Your task to perform on an android device: turn on notifications settings in the gmail app Image 0: 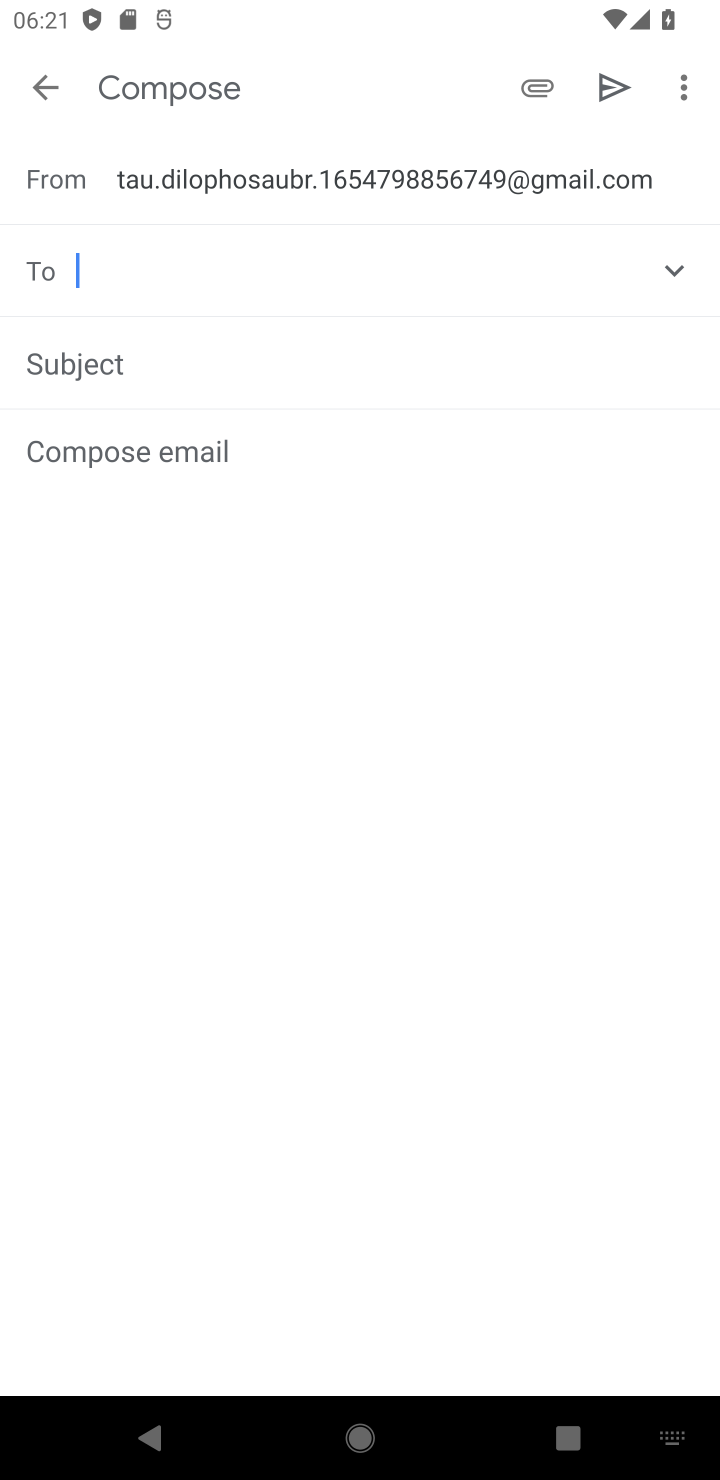
Step 0: press home button
Your task to perform on an android device: turn on notifications settings in the gmail app Image 1: 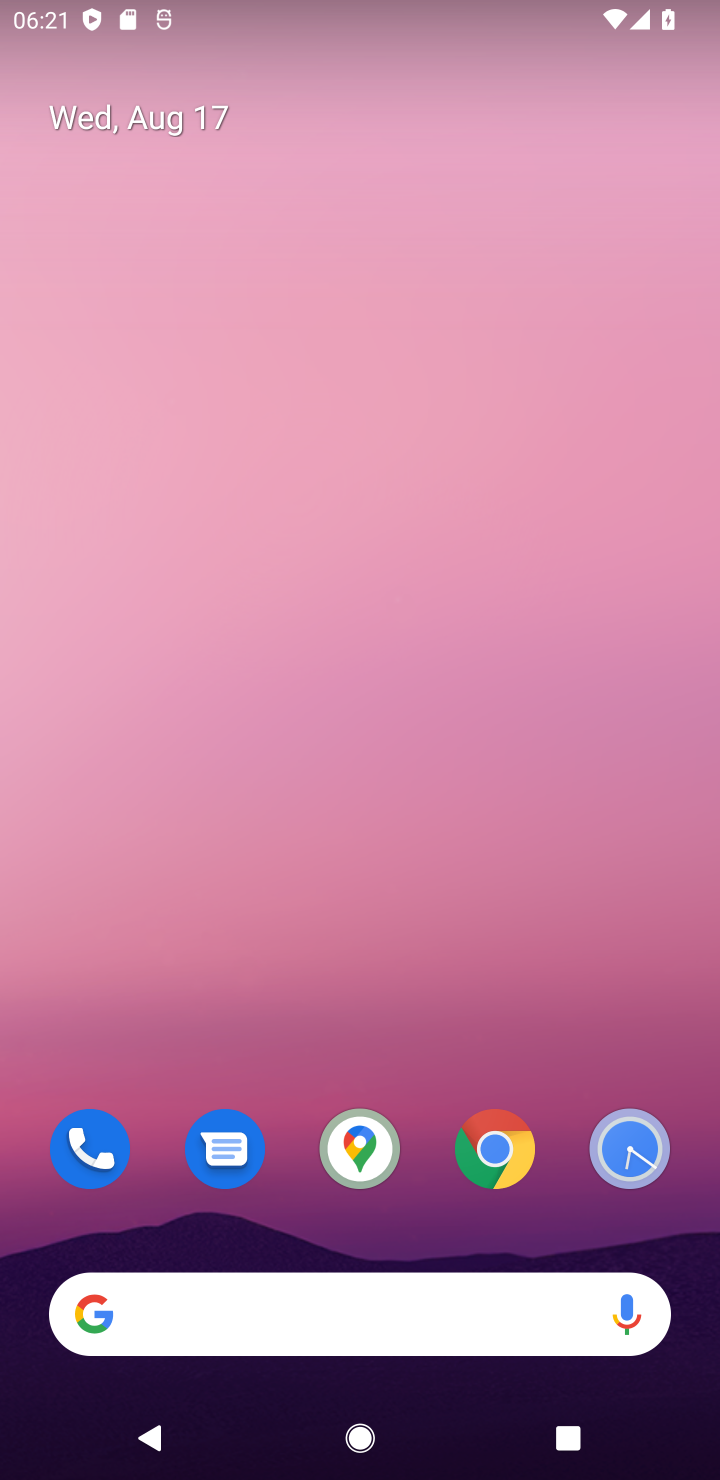
Step 1: drag from (548, 1050) to (413, 220)
Your task to perform on an android device: turn on notifications settings in the gmail app Image 2: 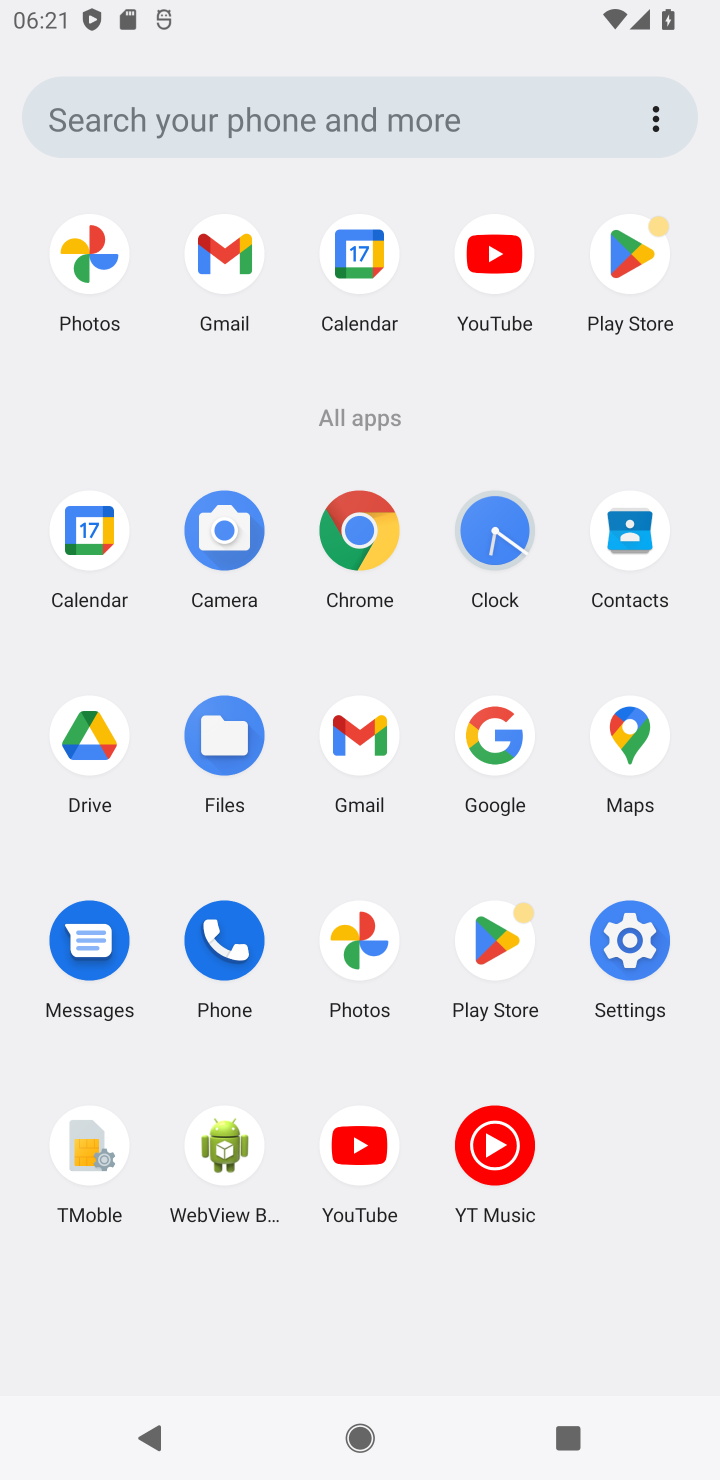
Step 2: click (216, 249)
Your task to perform on an android device: turn on notifications settings in the gmail app Image 3: 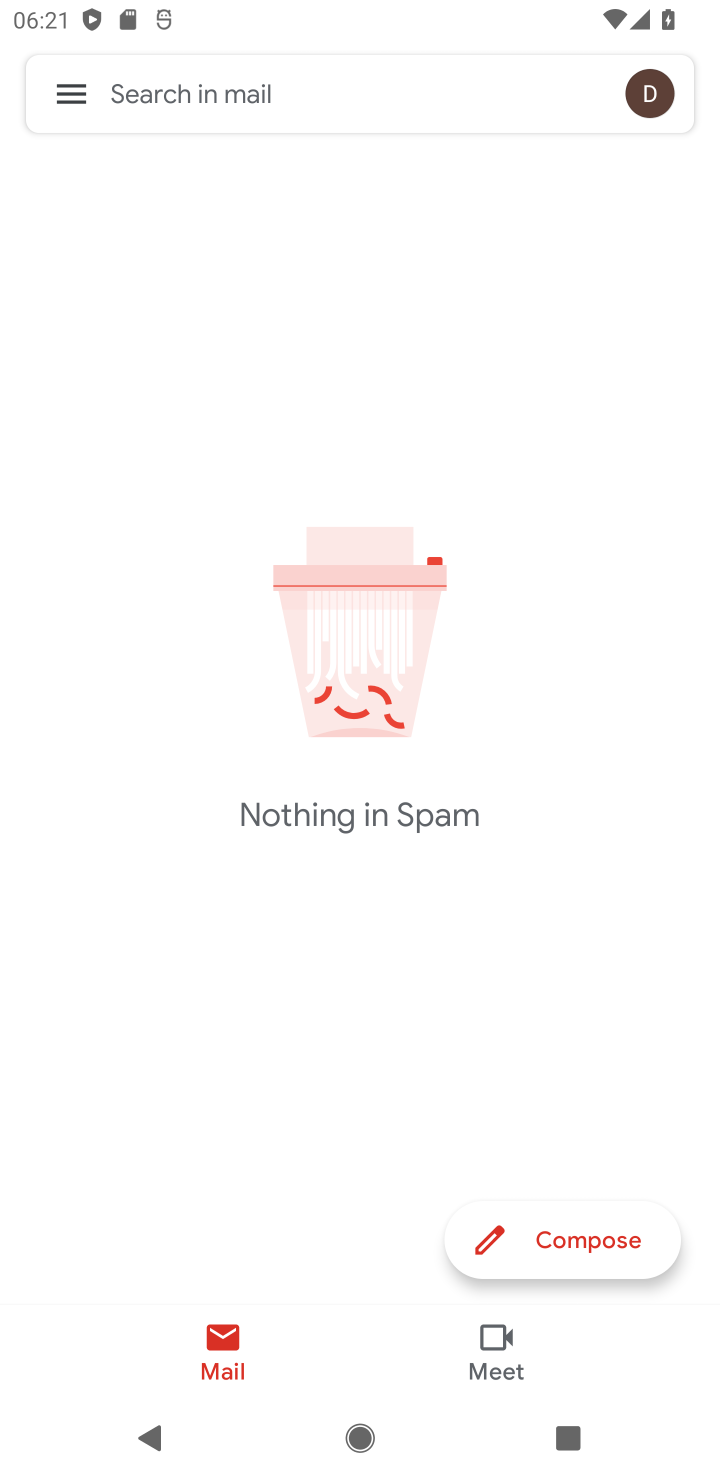
Step 3: click (70, 84)
Your task to perform on an android device: turn on notifications settings in the gmail app Image 4: 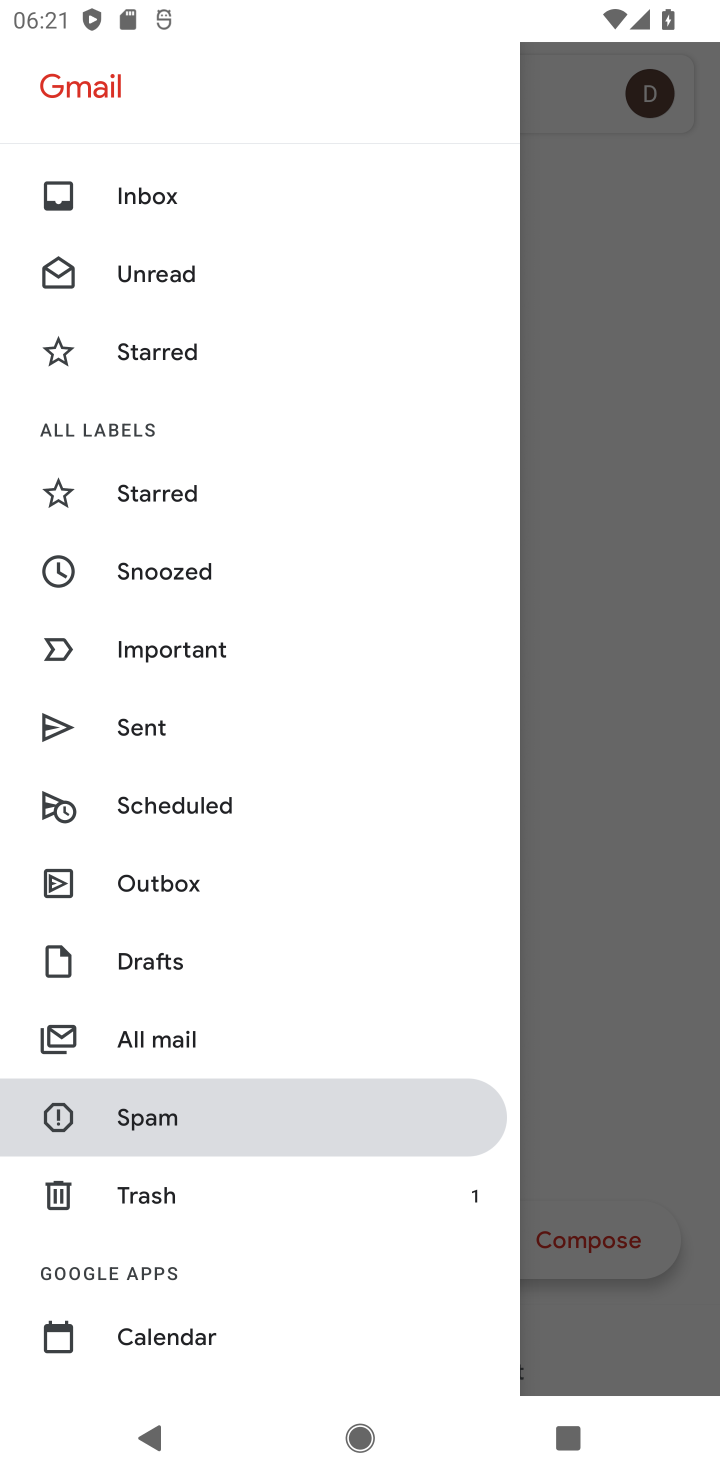
Step 4: drag from (251, 1246) to (301, 388)
Your task to perform on an android device: turn on notifications settings in the gmail app Image 5: 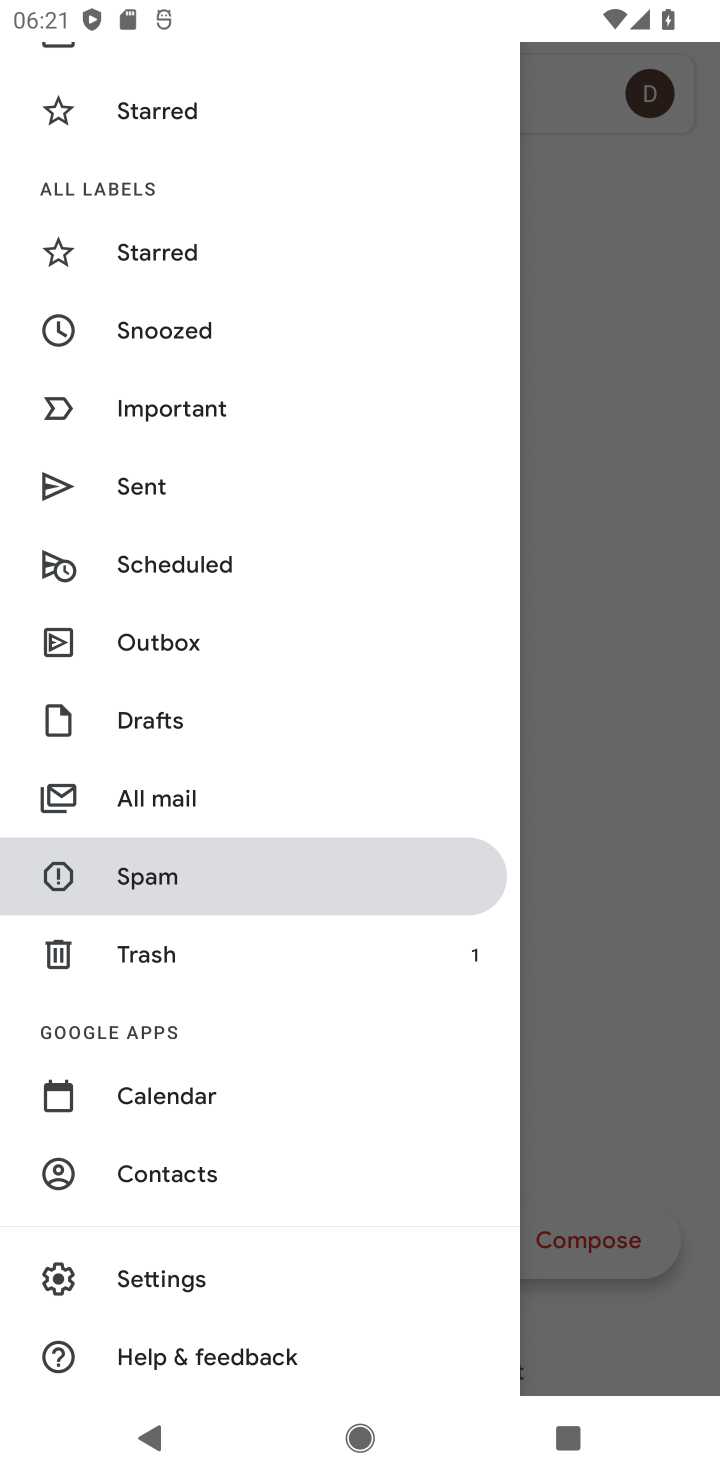
Step 5: click (157, 1262)
Your task to perform on an android device: turn on notifications settings in the gmail app Image 6: 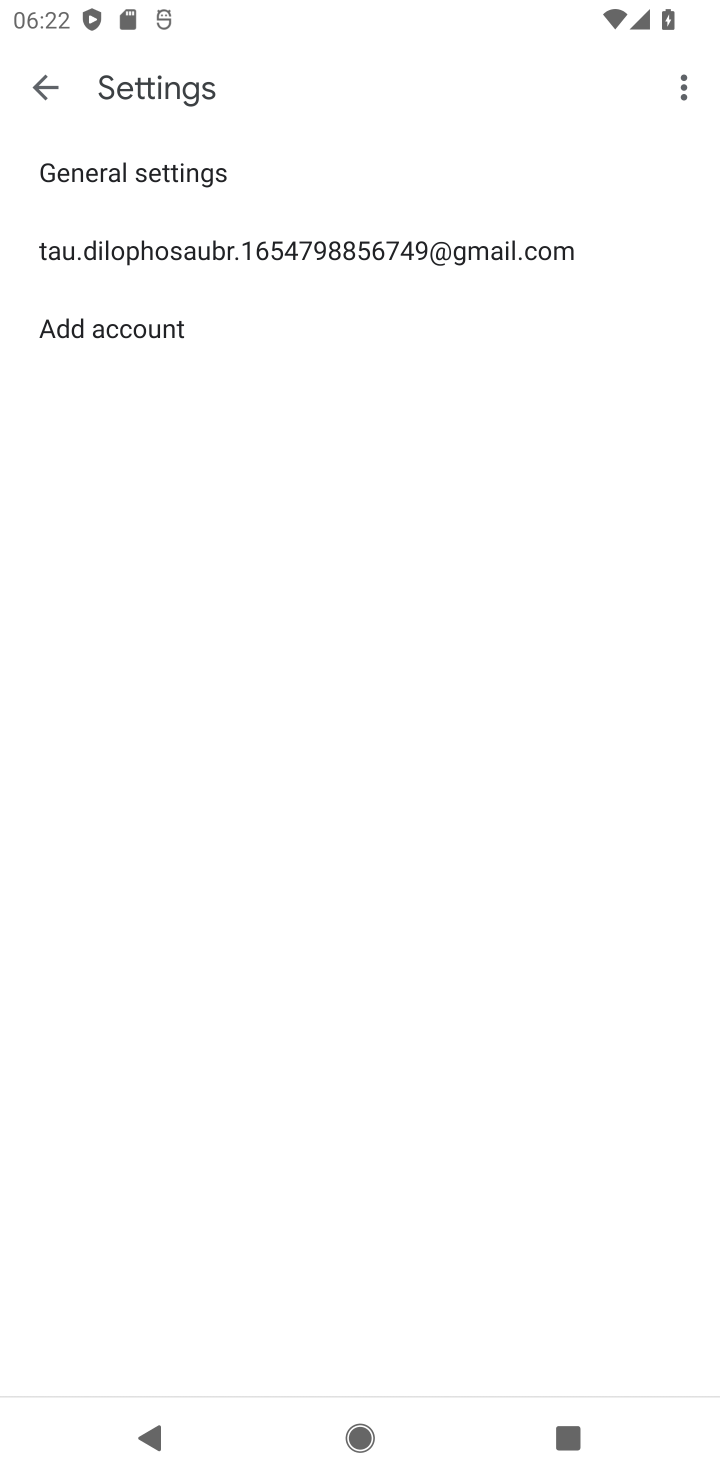
Step 6: click (127, 166)
Your task to perform on an android device: turn on notifications settings in the gmail app Image 7: 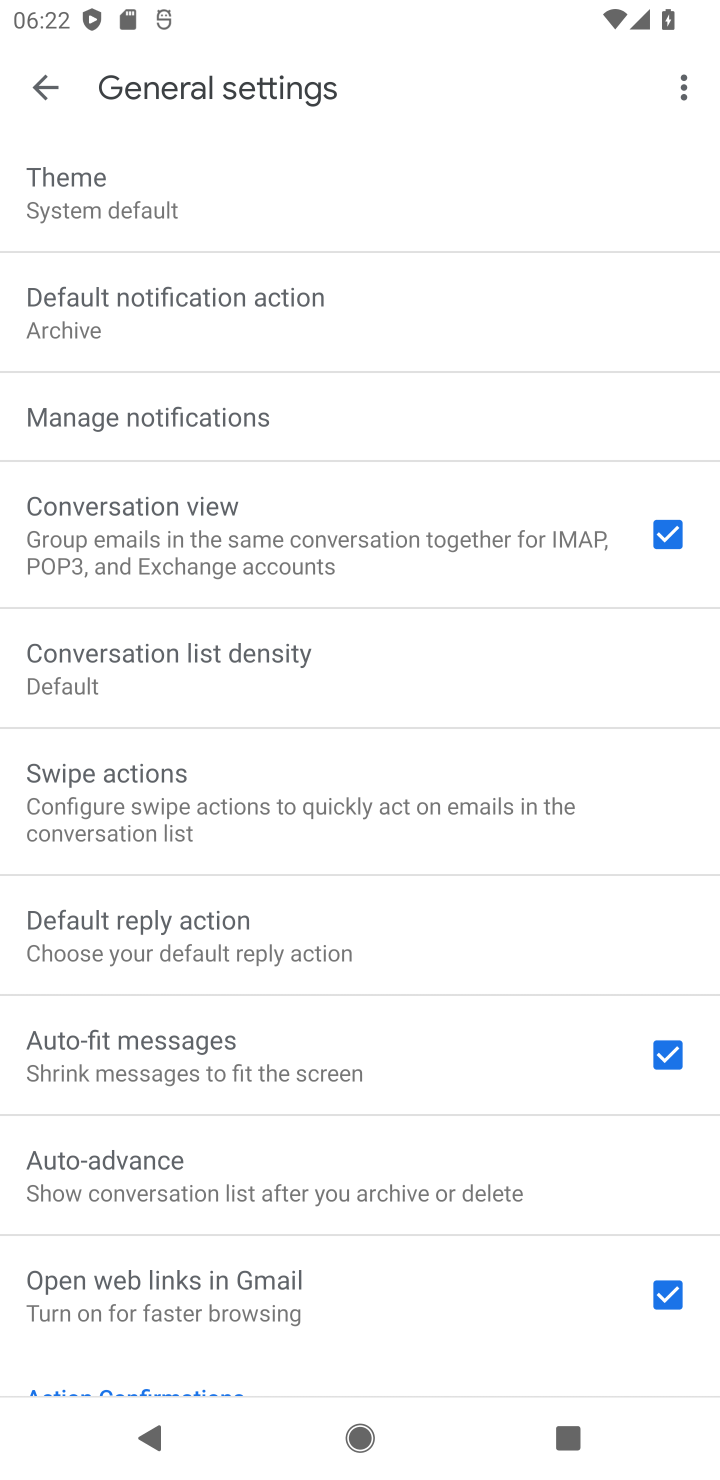
Step 7: click (133, 402)
Your task to perform on an android device: turn on notifications settings in the gmail app Image 8: 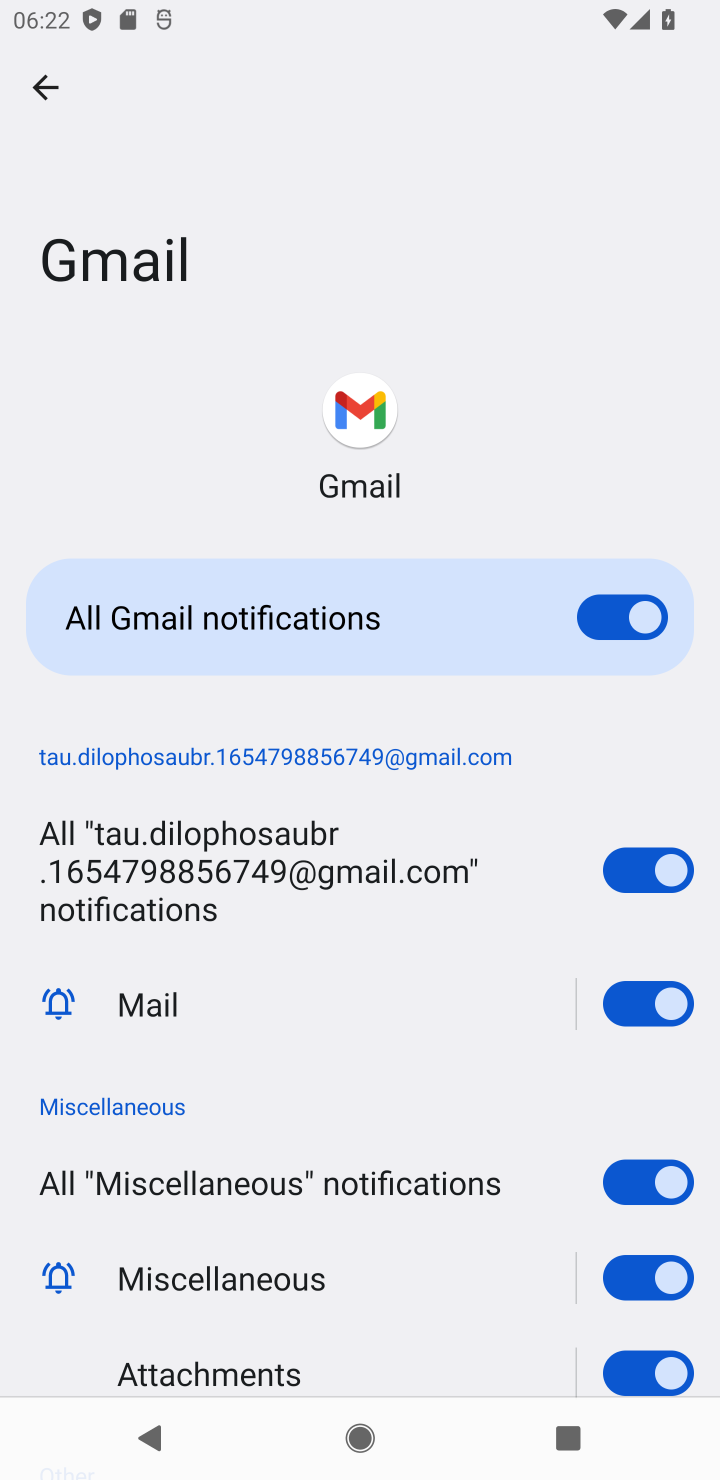
Step 8: task complete